Your task to perform on an android device: turn on data saver in the chrome app Image 0: 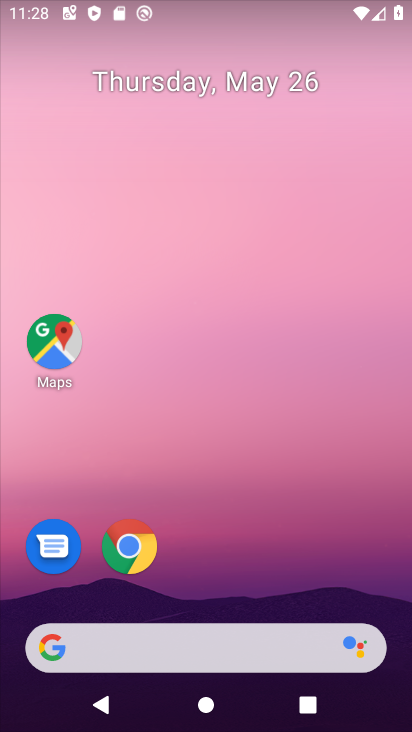
Step 0: drag from (201, 552) to (252, 109)
Your task to perform on an android device: turn on data saver in the chrome app Image 1: 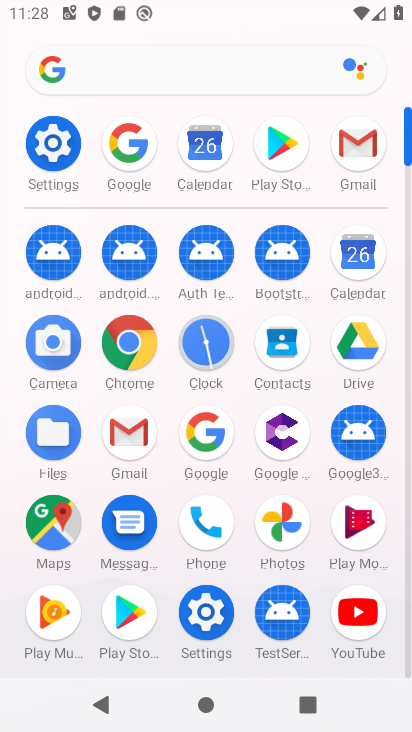
Step 1: click (133, 338)
Your task to perform on an android device: turn on data saver in the chrome app Image 2: 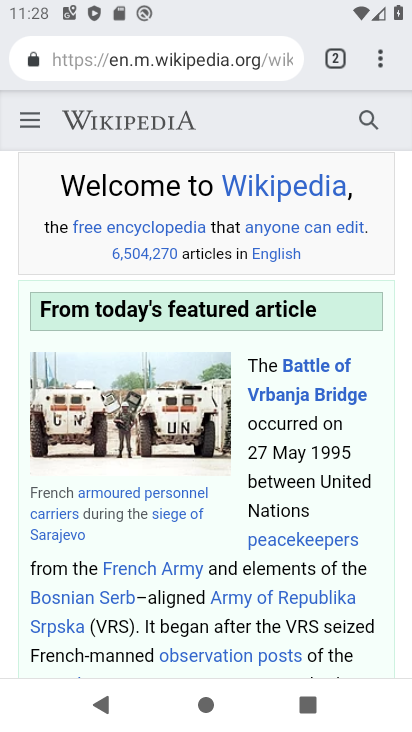
Step 2: click (371, 53)
Your task to perform on an android device: turn on data saver in the chrome app Image 3: 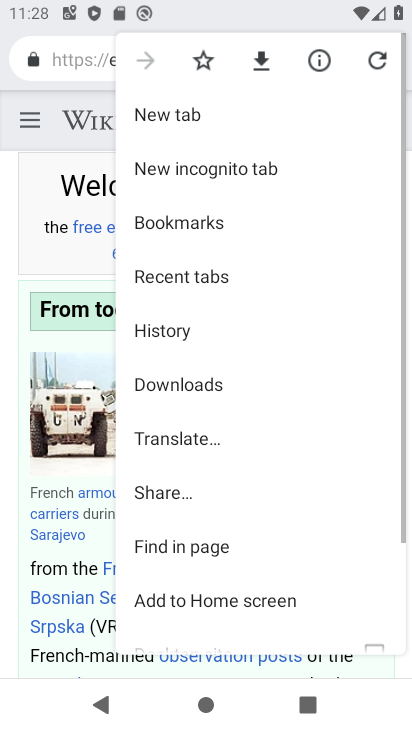
Step 3: drag from (214, 476) to (232, 199)
Your task to perform on an android device: turn on data saver in the chrome app Image 4: 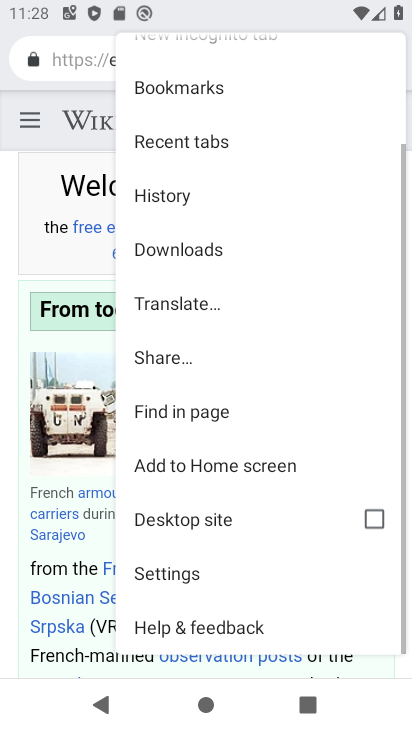
Step 4: click (162, 575)
Your task to perform on an android device: turn on data saver in the chrome app Image 5: 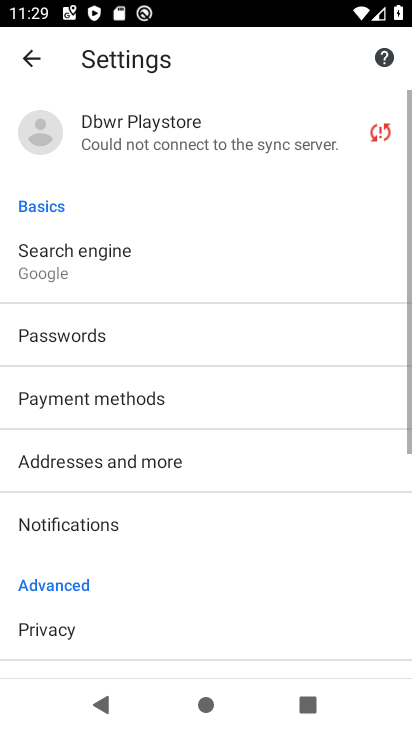
Step 5: drag from (204, 544) to (210, 232)
Your task to perform on an android device: turn on data saver in the chrome app Image 6: 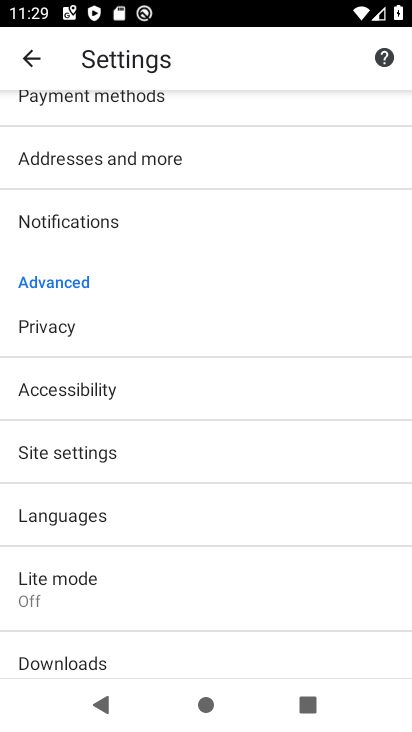
Step 6: click (82, 605)
Your task to perform on an android device: turn on data saver in the chrome app Image 7: 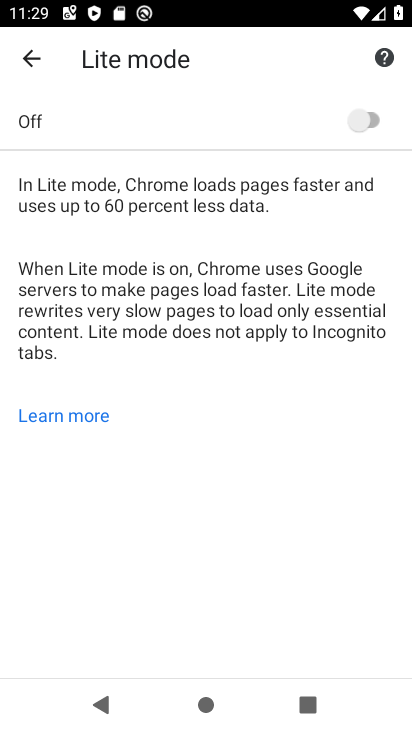
Step 7: click (375, 126)
Your task to perform on an android device: turn on data saver in the chrome app Image 8: 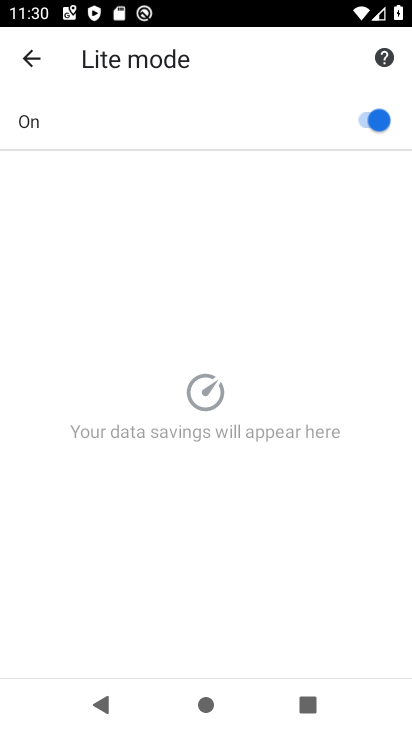
Step 8: task complete